Your task to perform on an android device: turn on notifications settings in the gmail app Image 0: 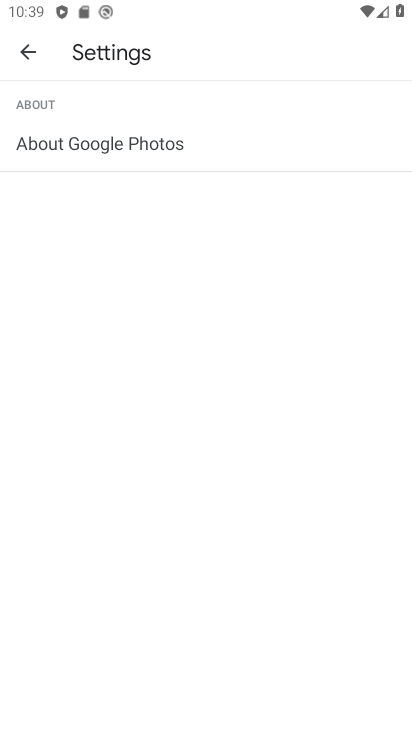
Step 0: press home button
Your task to perform on an android device: turn on notifications settings in the gmail app Image 1: 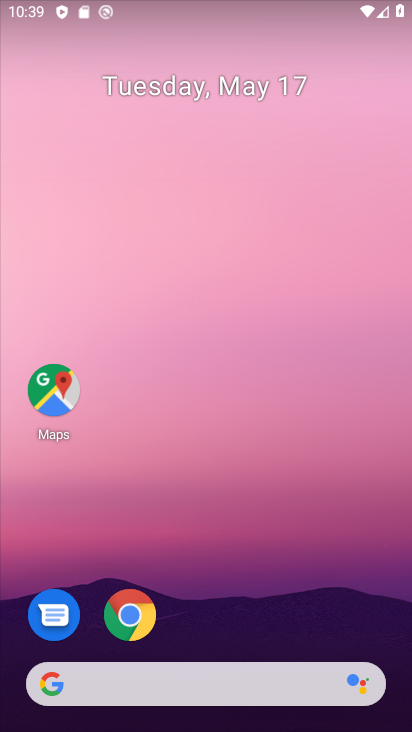
Step 1: drag from (188, 627) to (202, 210)
Your task to perform on an android device: turn on notifications settings in the gmail app Image 2: 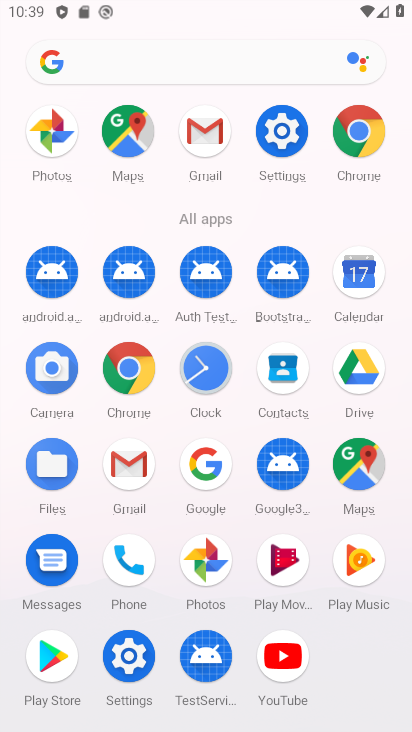
Step 2: click (127, 462)
Your task to perform on an android device: turn on notifications settings in the gmail app Image 3: 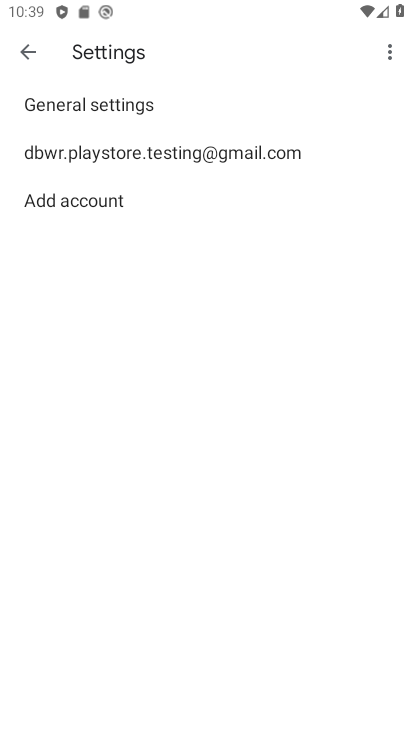
Step 3: click (139, 155)
Your task to perform on an android device: turn on notifications settings in the gmail app Image 4: 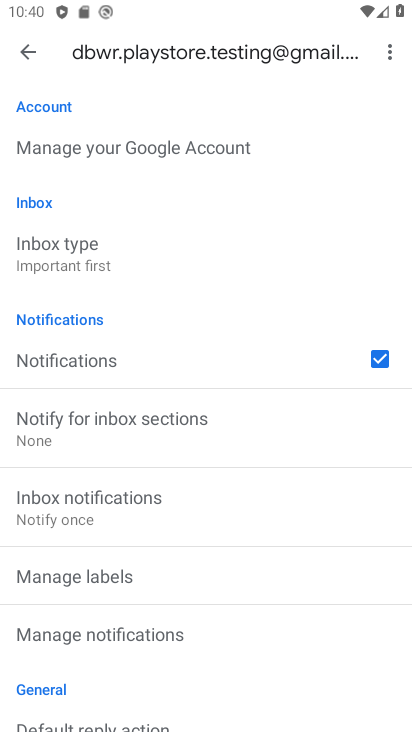
Step 4: click (297, 356)
Your task to perform on an android device: turn on notifications settings in the gmail app Image 5: 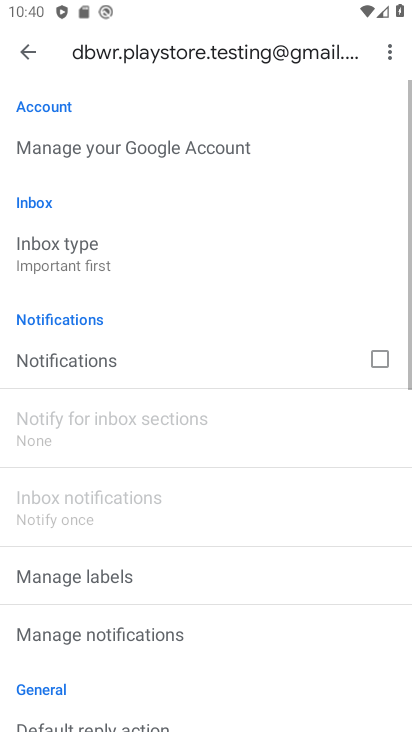
Step 5: click (387, 353)
Your task to perform on an android device: turn on notifications settings in the gmail app Image 6: 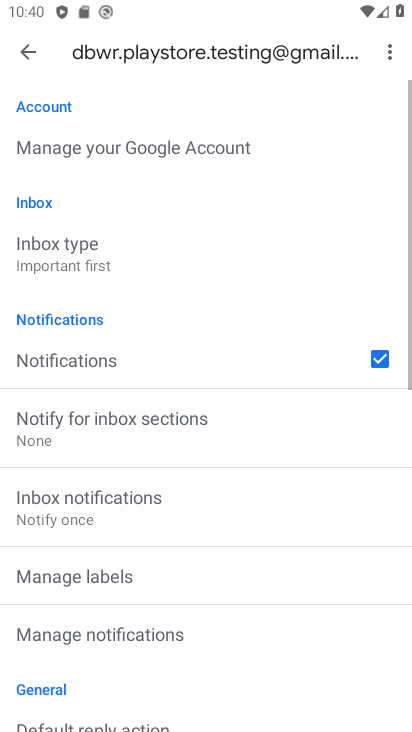
Step 6: task complete